Your task to perform on an android device: turn off location history Image 0: 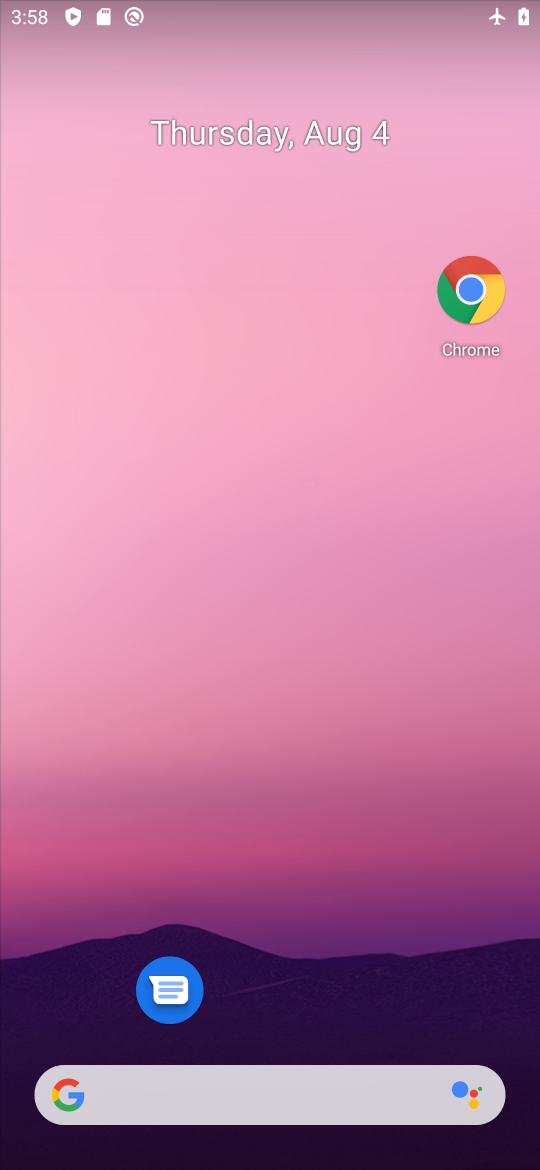
Step 0: drag from (421, 952) to (434, 120)
Your task to perform on an android device: turn off location history Image 1: 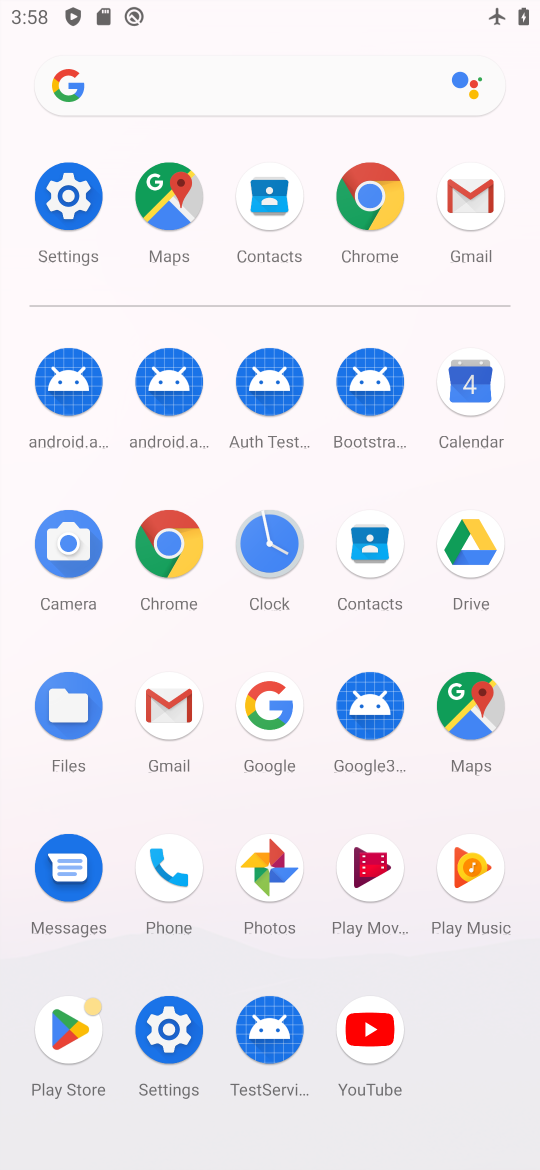
Step 1: click (52, 191)
Your task to perform on an android device: turn off location history Image 2: 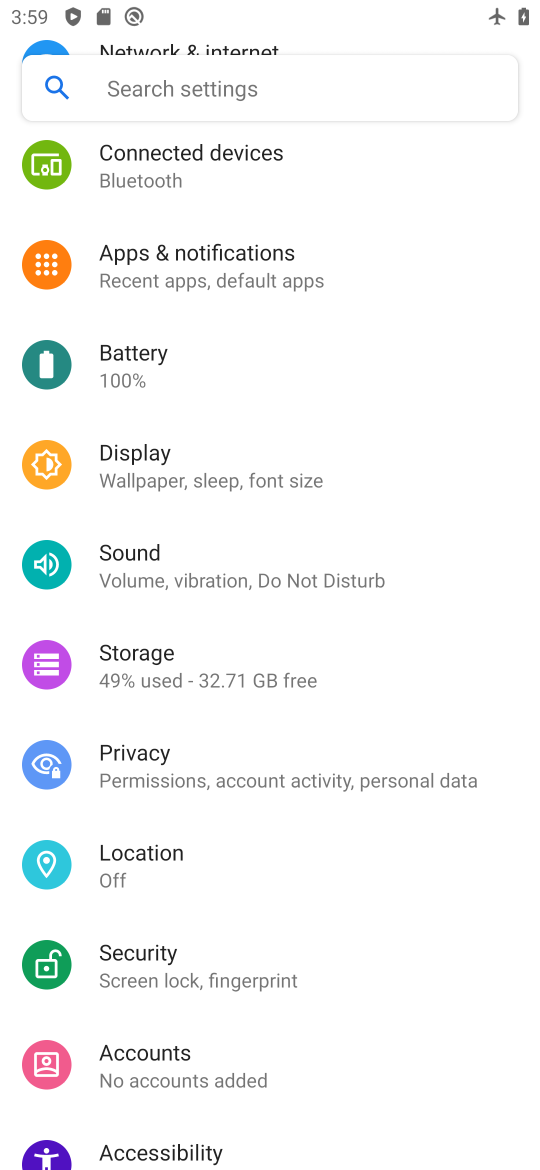
Step 2: click (181, 880)
Your task to perform on an android device: turn off location history Image 3: 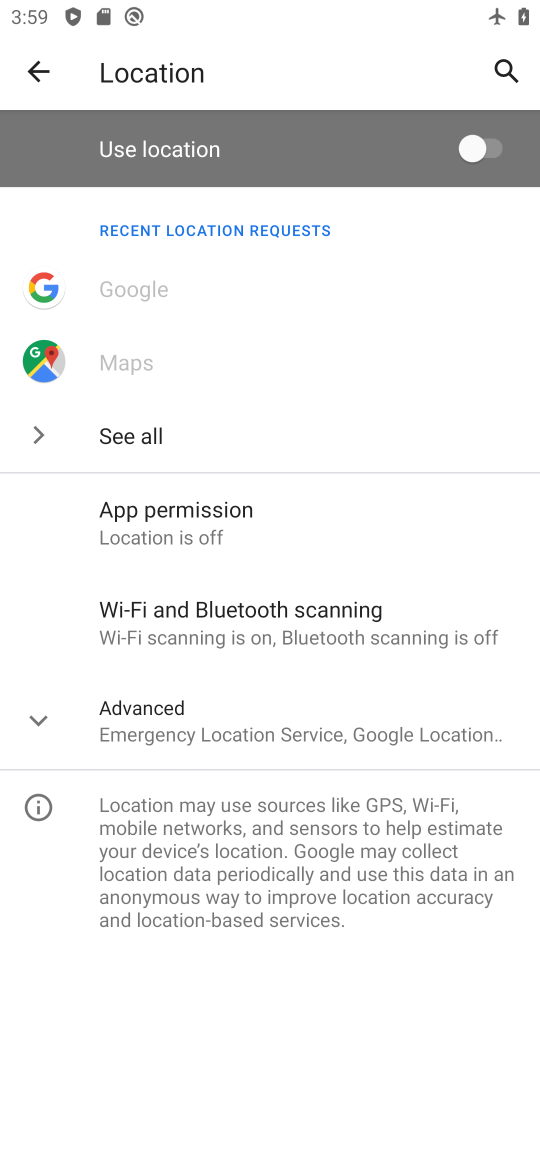
Step 3: task complete